Your task to perform on an android device: Open the calendar app, open the side menu, and click the "Day" option Image 0: 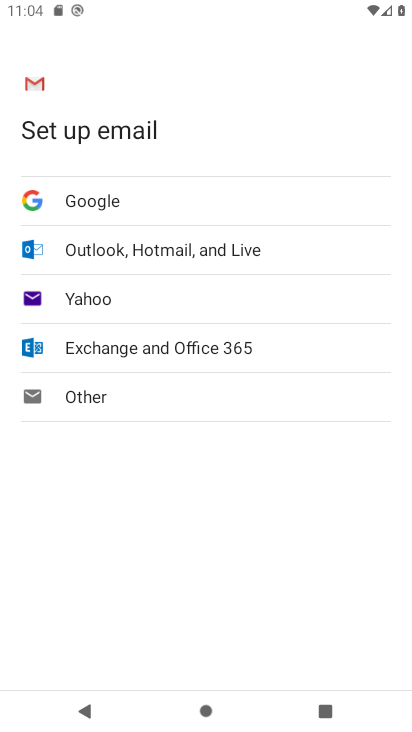
Step 0: press home button
Your task to perform on an android device: Open the calendar app, open the side menu, and click the "Day" option Image 1: 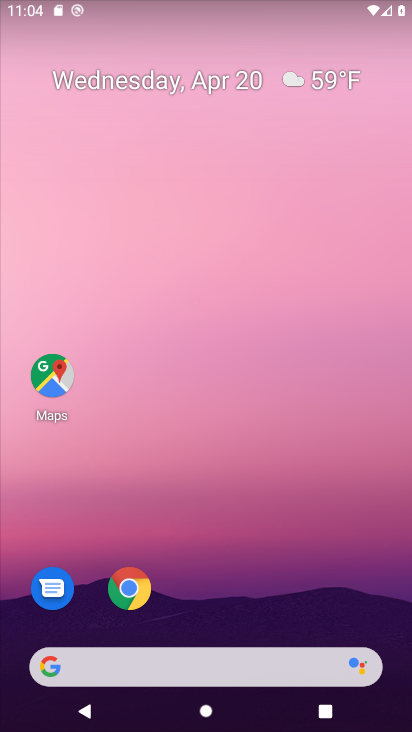
Step 1: drag from (394, 628) to (315, 83)
Your task to perform on an android device: Open the calendar app, open the side menu, and click the "Day" option Image 2: 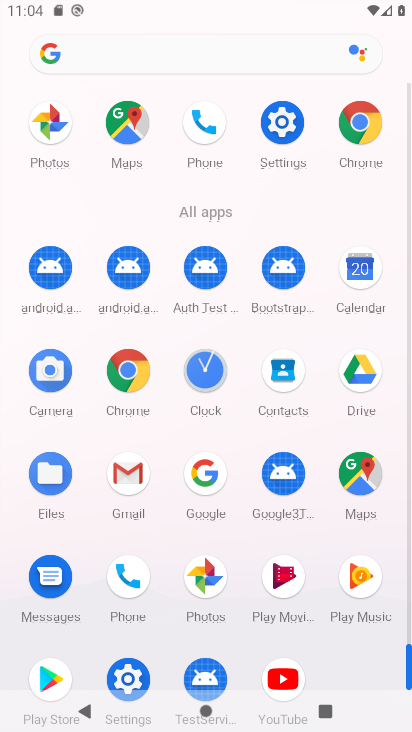
Step 2: click (359, 266)
Your task to perform on an android device: Open the calendar app, open the side menu, and click the "Day" option Image 3: 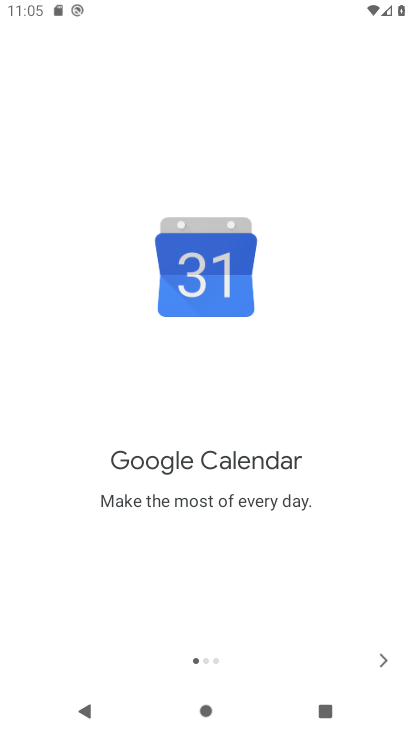
Step 3: click (383, 657)
Your task to perform on an android device: Open the calendar app, open the side menu, and click the "Day" option Image 4: 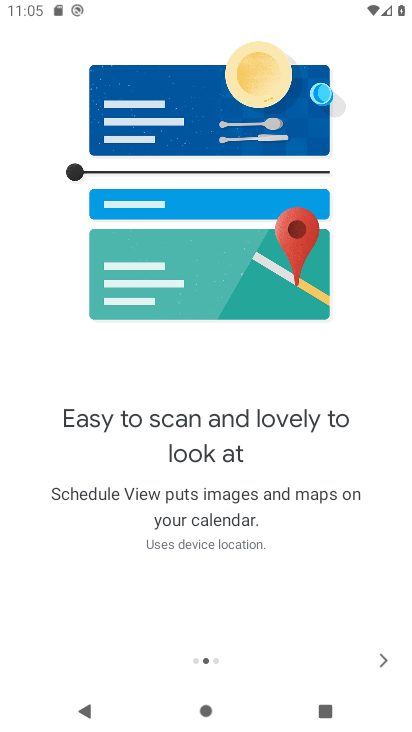
Step 4: click (378, 657)
Your task to perform on an android device: Open the calendar app, open the side menu, and click the "Day" option Image 5: 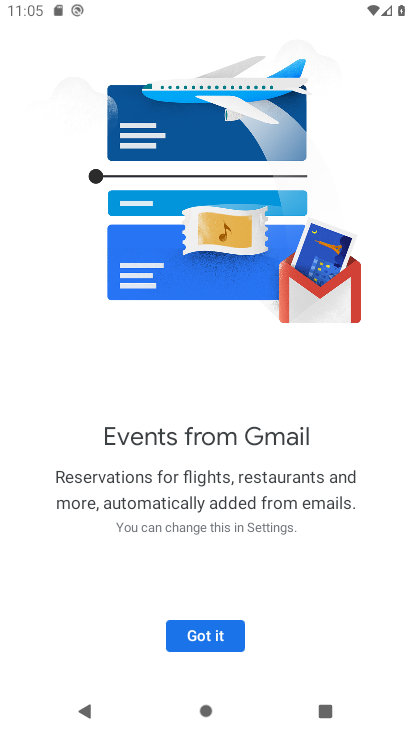
Step 5: click (196, 635)
Your task to perform on an android device: Open the calendar app, open the side menu, and click the "Day" option Image 6: 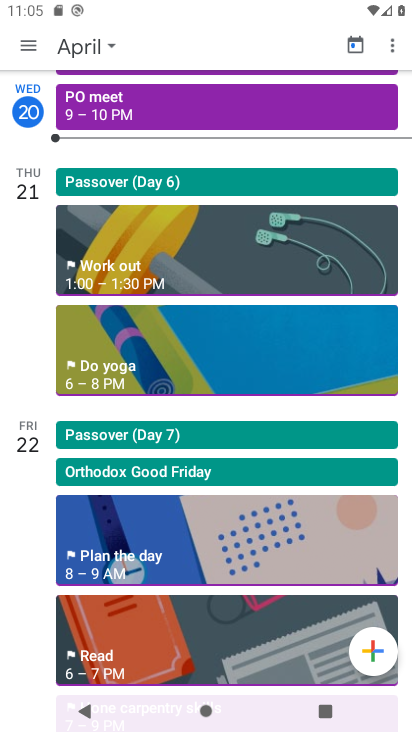
Step 6: click (26, 50)
Your task to perform on an android device: Open the calendar app, open the side menu, and click the "Day" option Image 7: 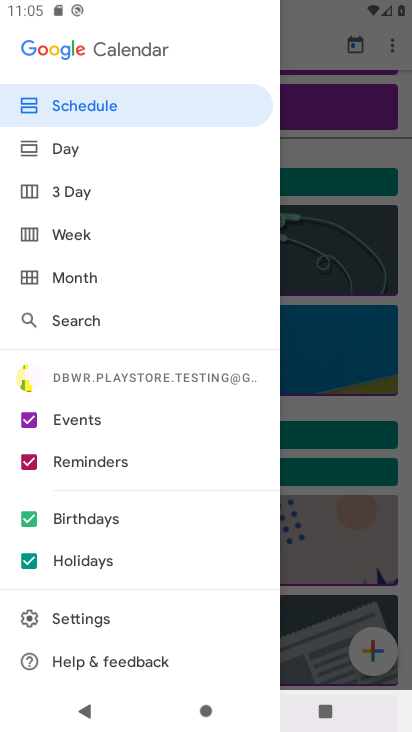
Step 7: click (60, 149)
Your task to perform on an android device: Open the calendar app, open the side menu, and click the "Day" option Image 8: 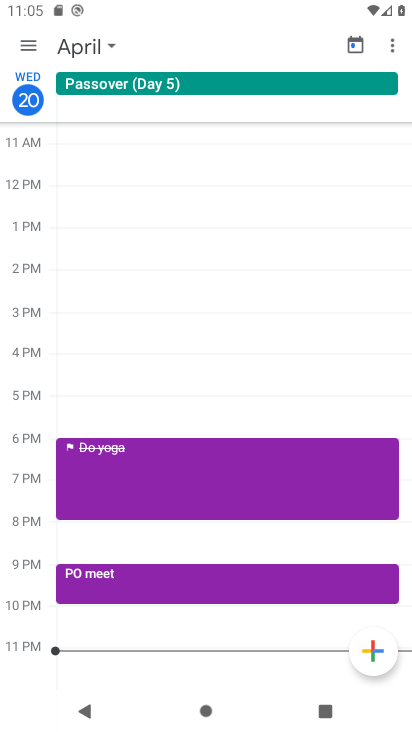
Step 8: task complete